Your task to perform on an android device: Open the phone app and click the voicemail tab. Image 0: 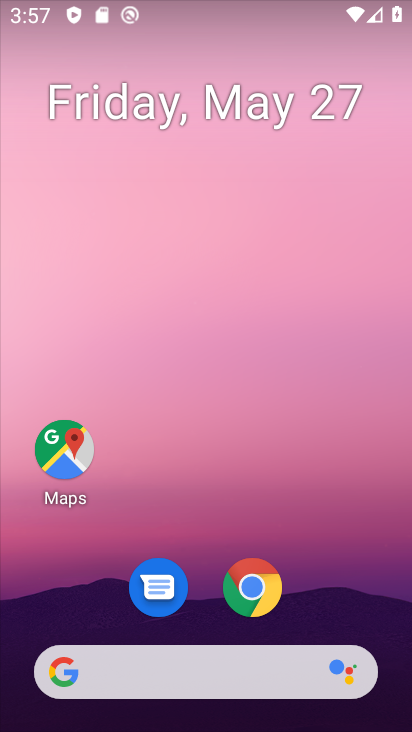
Step 0: drag from (314, 579) to (204, 42)
Your task to perform on an android device: Open the phone app and click the voicemail tab. Image 1: 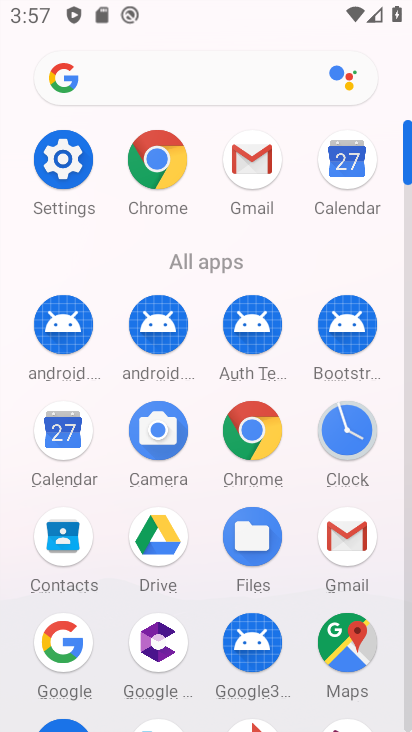
Step 1: drag from (8, 592) to (11, 259)
Your task to perform on an android device: Open the phone app and click the voicemail tab. Image 2: 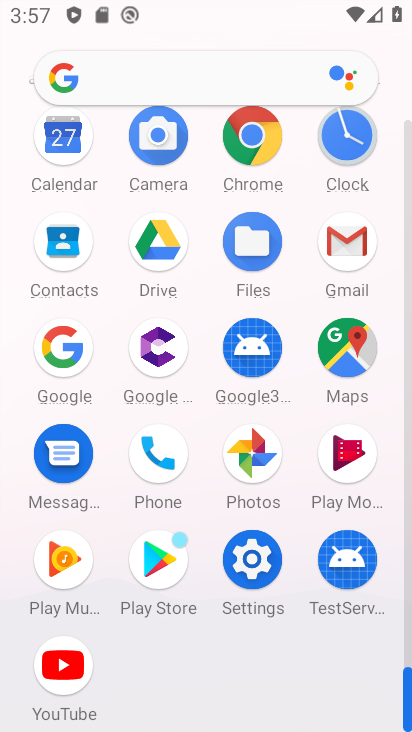
Step 2: click (151, 447)
Your task to perform on an android device: Open the phone app and click the voicemail tab. Image 3: 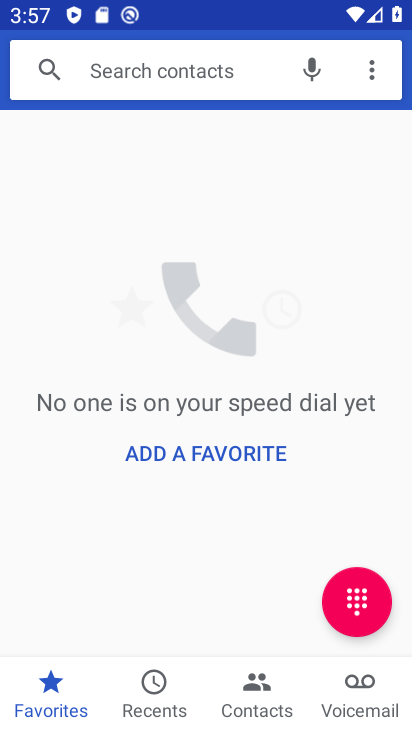
Step 3: click (363, 685)
Your task to perform on an android device: Open the phone app and click the voicemail tab. Image 4: 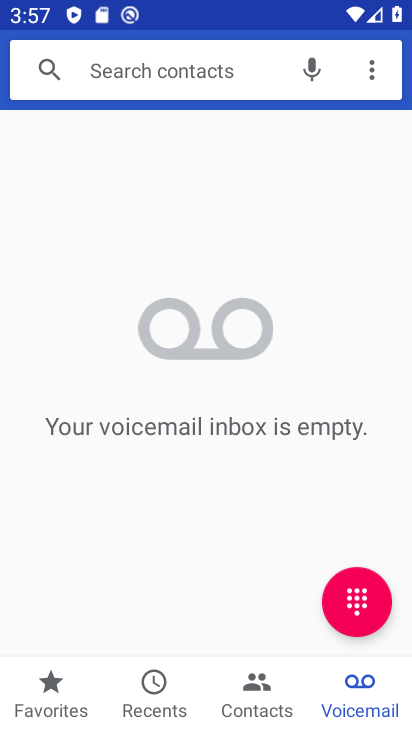
Step 4: task complete